Your task to perform on an android device: change timer sound Image 0: 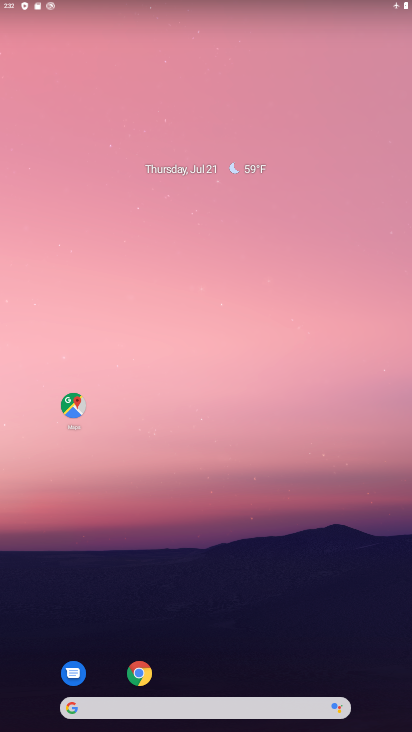
Step 0: drag from (385, 676) to (349, 183)
Your task to perform on an android device: change timer sound Image 1: 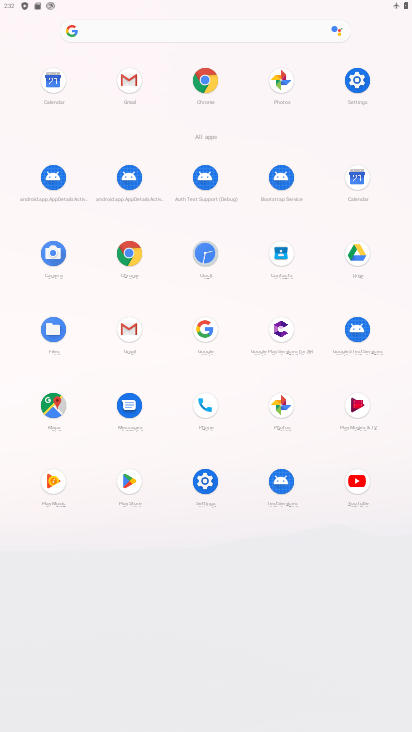
Step 1: click (205, 252)
Your task to perform on an android device: change timer sound Image 2: 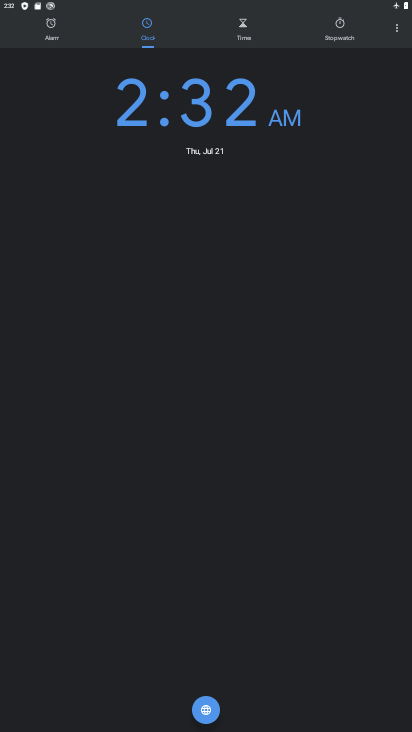
Step 2: click (397, 35)
Your task to perform on an android device: change timer sound Image 3: 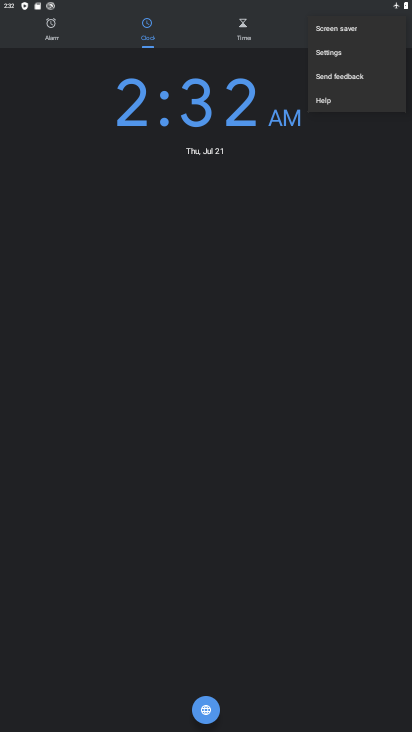
Step 3: click (328, 56)
Your task to perform on an android device: change timer sound Image 4: 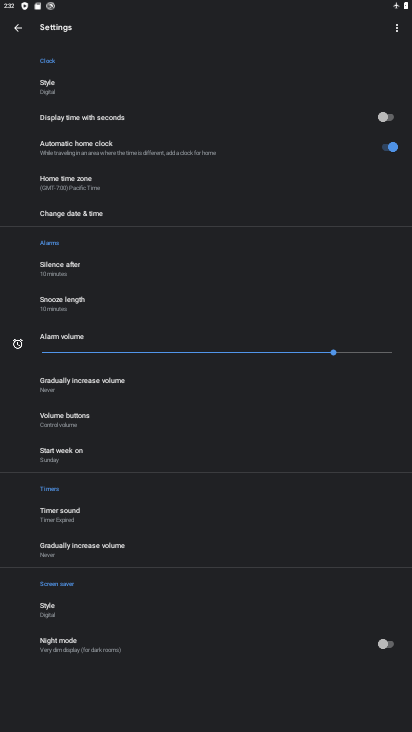
Step 4: click (61, 512)
Your task to perform on an android device: change timer sound Image 5: 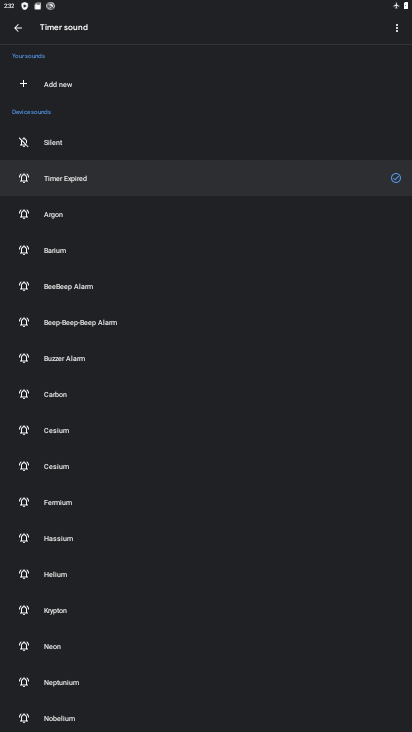
Step 5: click (53, 580)
Your task to perform on an android device: change timer sound Image 6: 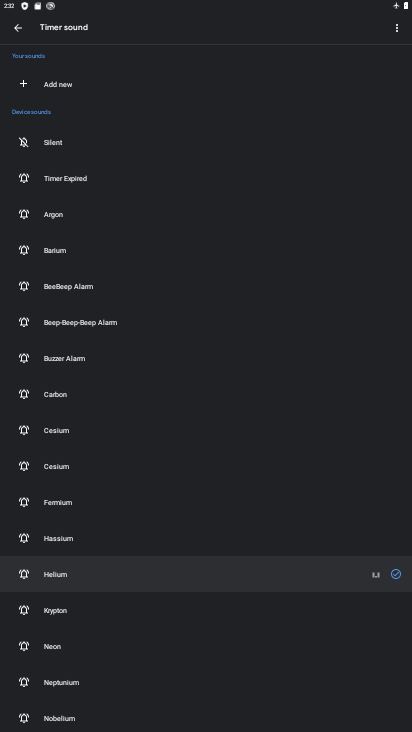
Step 6: task complete